Your task to perform on an android device: remove spam from my inbox in the gmail app Image 0: 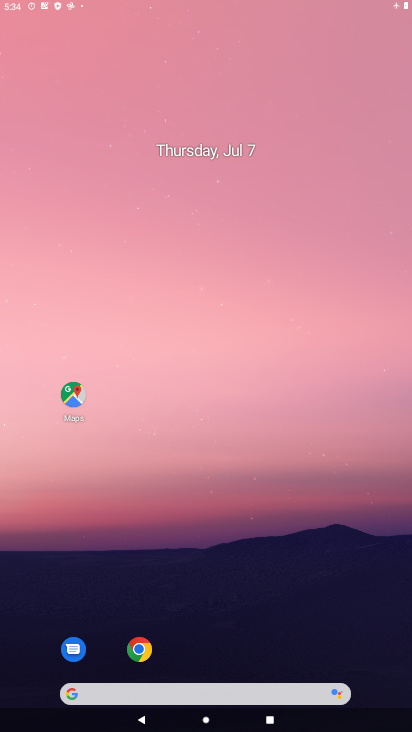
Step 0: drag from (357, 652) to (234, 56)
Your task to perform on an android device: remove spam from my inbox in the gmail app Image 1: 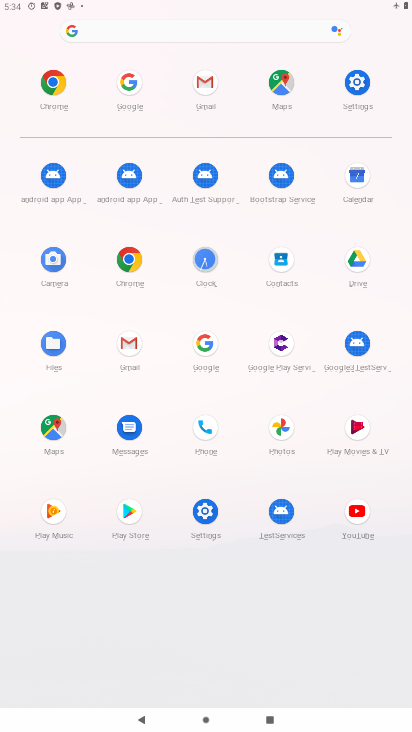
Step 1: click (203, 86)
Your task to perform on an android device: remove spam from my inbox in the gmail app Image 2: 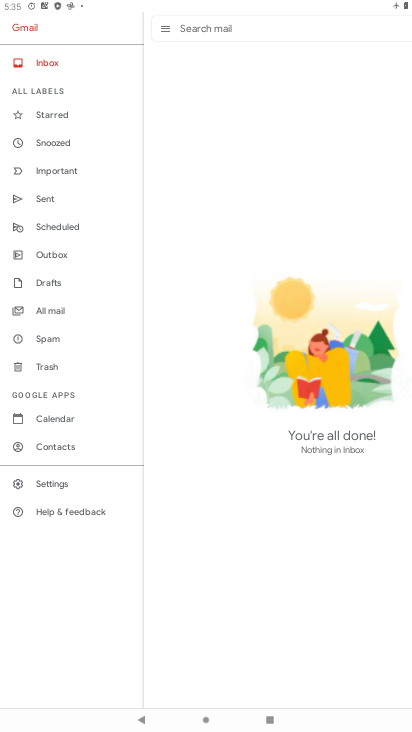
Step 2: click (55, 338)
Your task to perform on an android device: remove spam from my inbox in the gmail app Image 3: 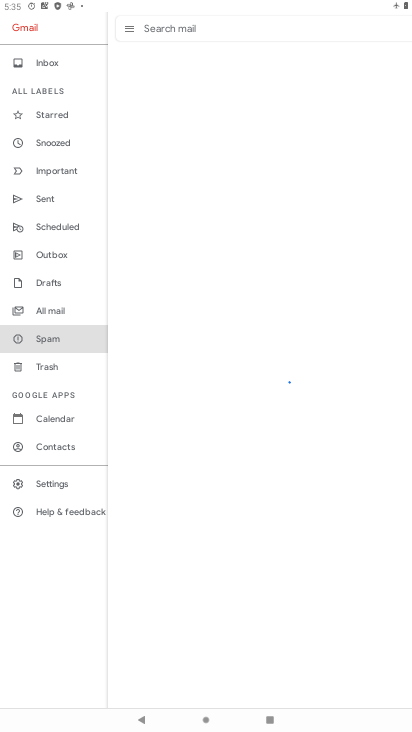
Step 3: task complete